Your task to perform on an android device: move a message to another label in the gmail app Image 0: 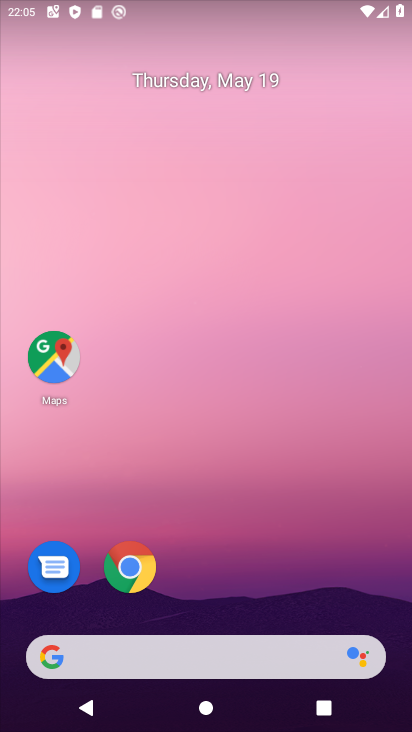
Step 0: press home button
Your task to perform on an android device: move a message to another label in the gmail app Image 1: 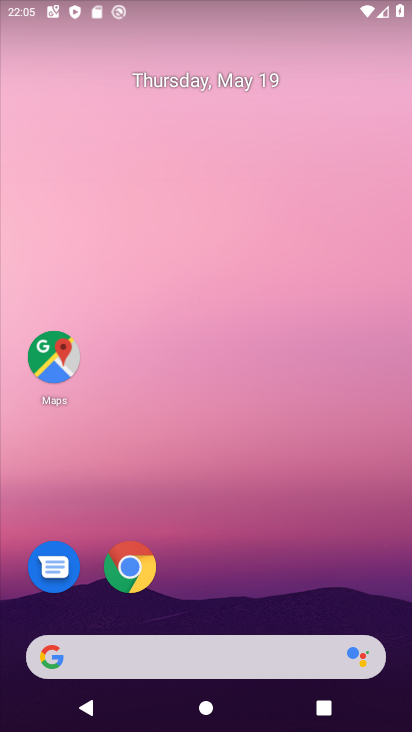
Step 1: drag from (224, 598) to (290, 141)
Your task to perform on an android device: move a message to another label in the gmail app Image 2: 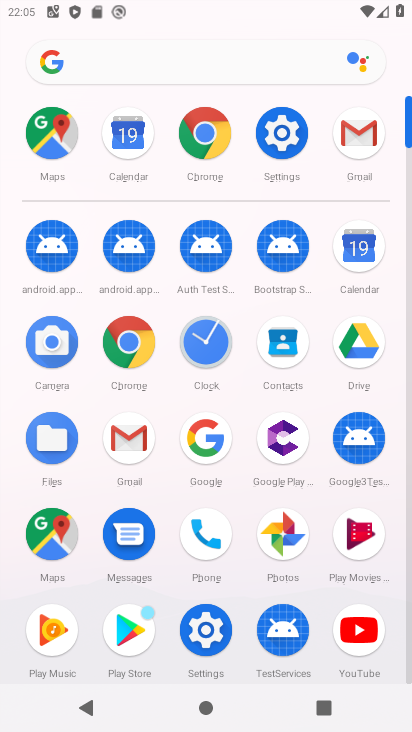
Step 2: click (134, 425)
Your task to perform on an android device: move a message to another label in the gmail app Image 3: 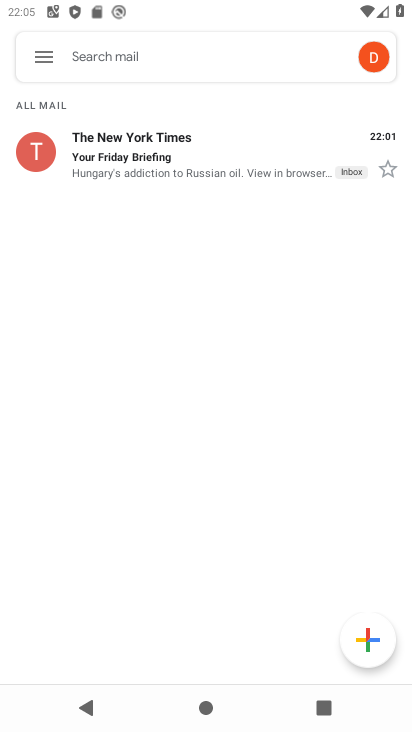
Step 3: click (36, 147)
Your task to perform on an android device: move a message to another label in the gmail app Image 4: 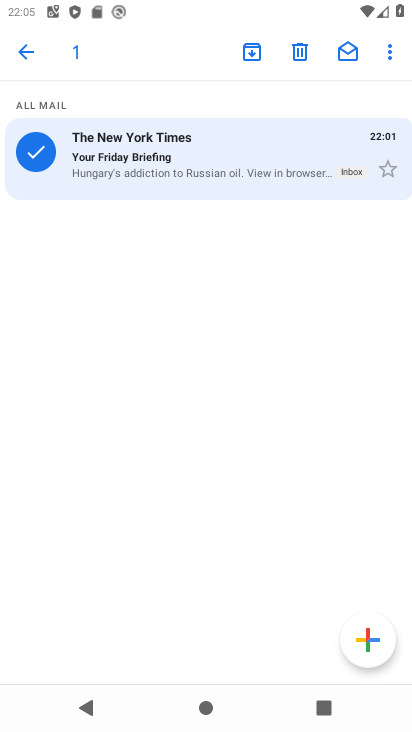
Step 4: click (392, 48)
Your task to perform on an android device: move a message to another label in the gmail app Image 5: 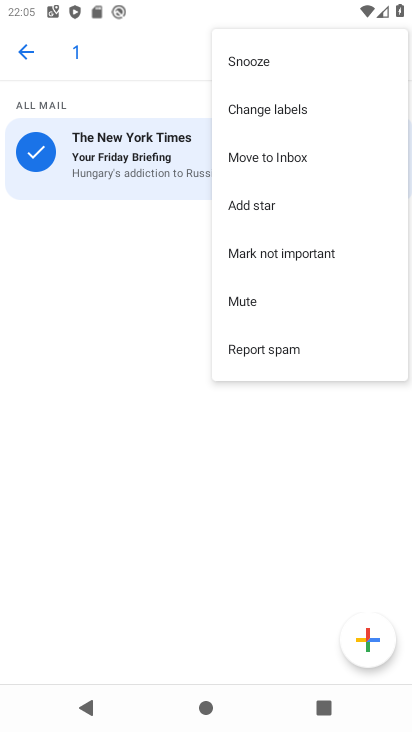
Step 5: click (297, 154)
Your task to perform on an android device: move a message to another label in the gmail app Image 6: 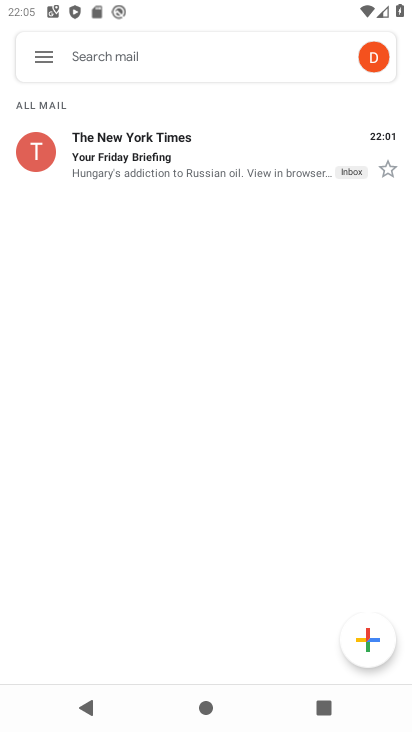
Step 6: task complete